Your task to perform on an android device: turn off picture-in-picture Image 0: 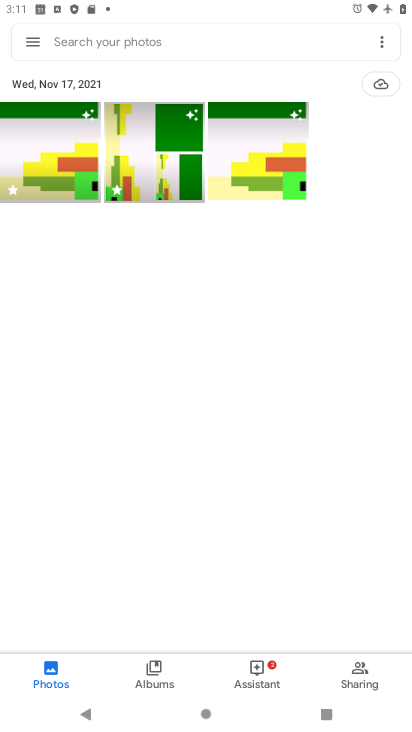
Step 0: click (386, 44)
Your task to perform on an android device: turn off picture-in-picture Image 1: 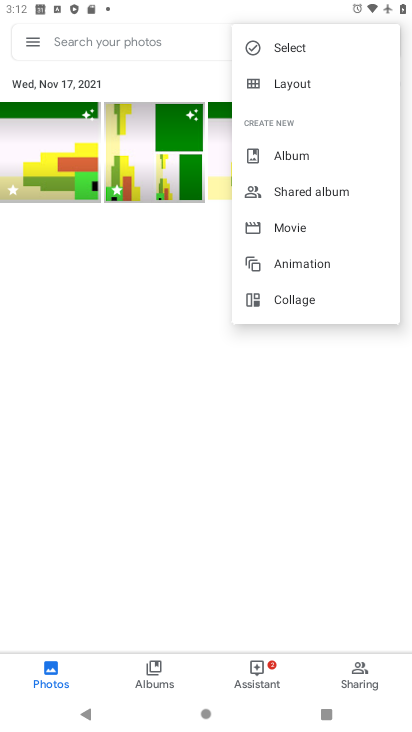
Step 1: click (150, 456)
Your task to perform on an android device: turn off picture-in-picture Image 2: 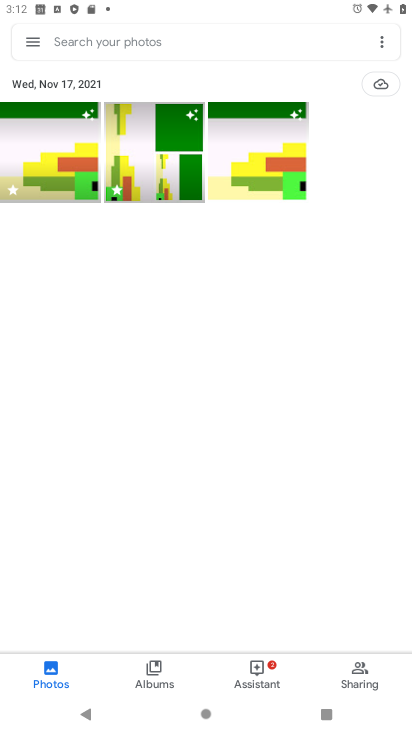
Step 2: press home button
Your task to perform on an android device: turn off picture-in-picture Image 3: 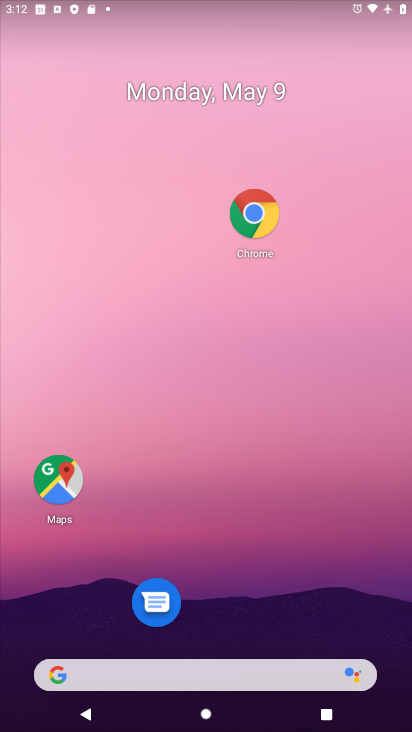
Step 3: drag from (322, 580) to (291, 243)
Your task to perform on an android device: turn off picture-in-picture Image 4: 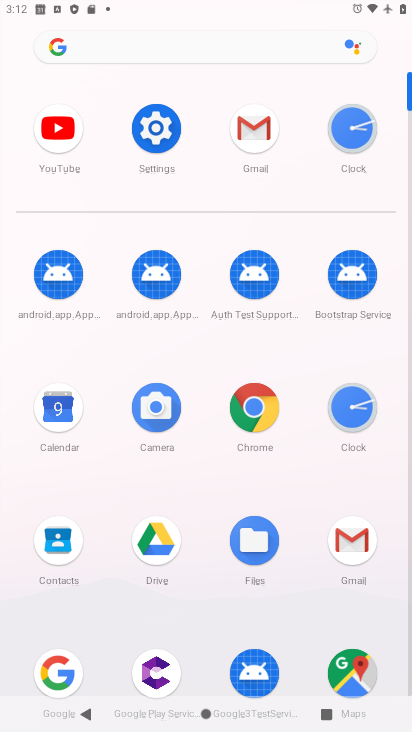
Step 4: click (154, 112)
Your task to perform on an android device: turn off picture-in-picture Image 5: 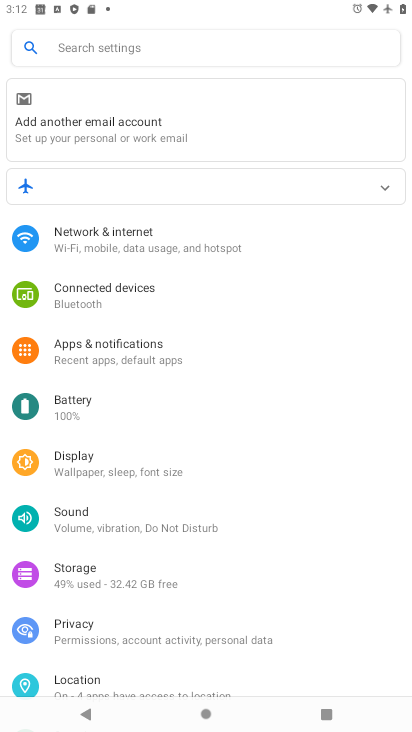
Step 5: drag from (189, 590) to (205, 481)
Your task to perform on an android device: turn off picture-in-picture Image 6: 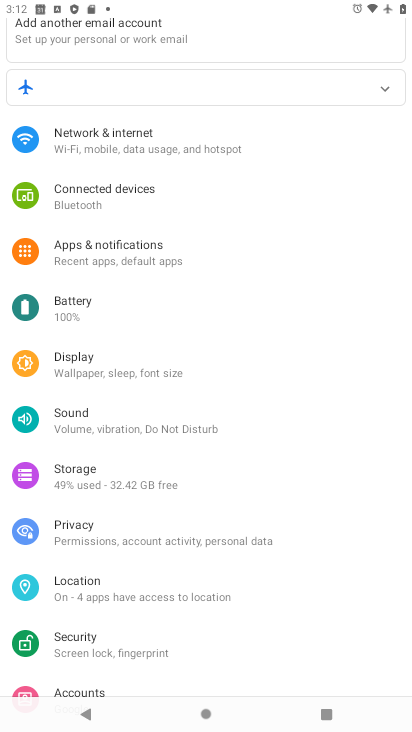
Step 6: click (230, 252)
Your task to perform on an android device: turn off picture-in-picture Image 7: 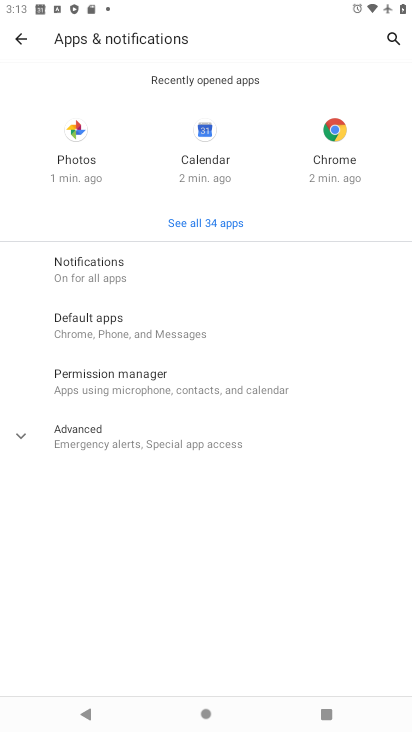
Step 7: click (237, 428)
Your task to perform on an android device: turn off picture-in-picture Image 8: 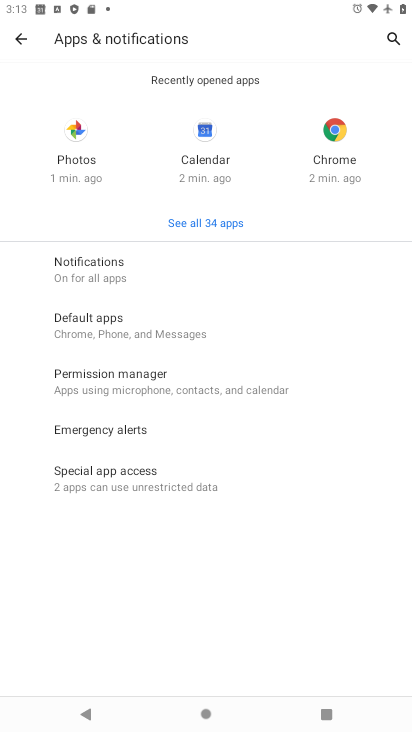
Step 8: click (204, 453)
Your task to perform on an android device: turn off picture-in-picture Image 9: 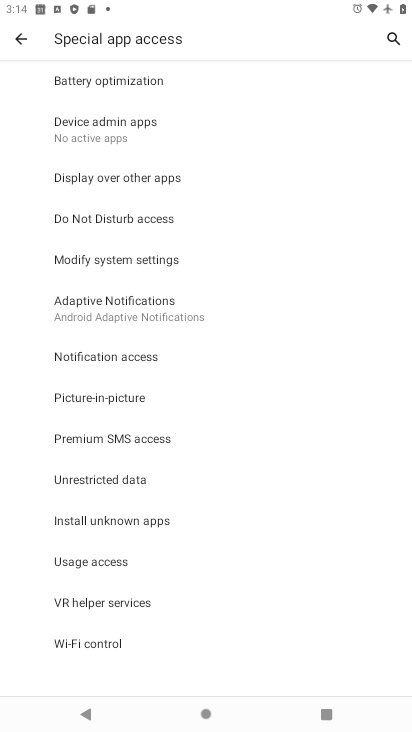
Step 9: task complete